Your task to perform on an android device: Go to internet settings Image 0: 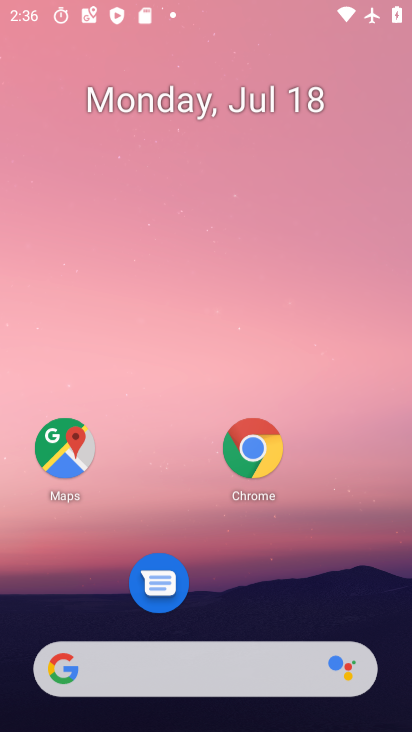
Step 0: press home button
Your task to perform on an android device: Go to internet settings Image 1: 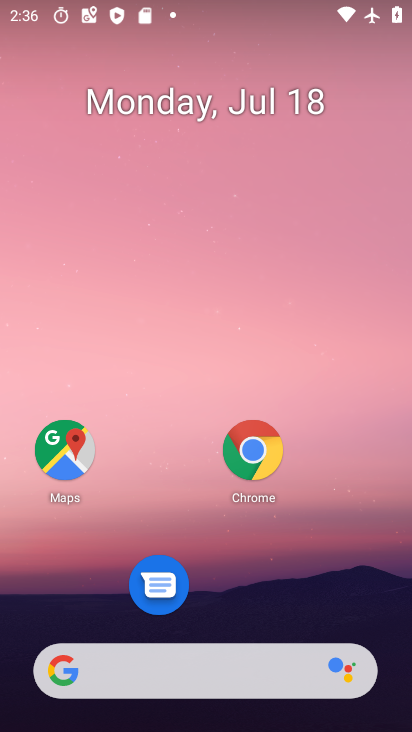
Step 1: drag from (203, 677) to (256, 195)
Your task to perform on an android device: Go to internet settings Image 2: 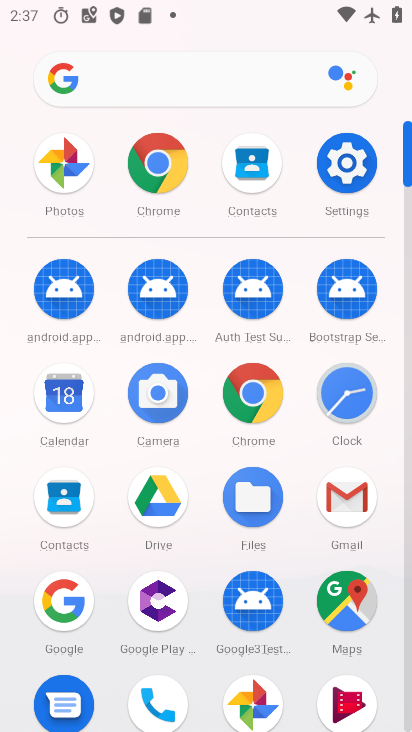
Step 2: click (343, 168)
Your task to perform on an android device: Go to internet settings Image 3: 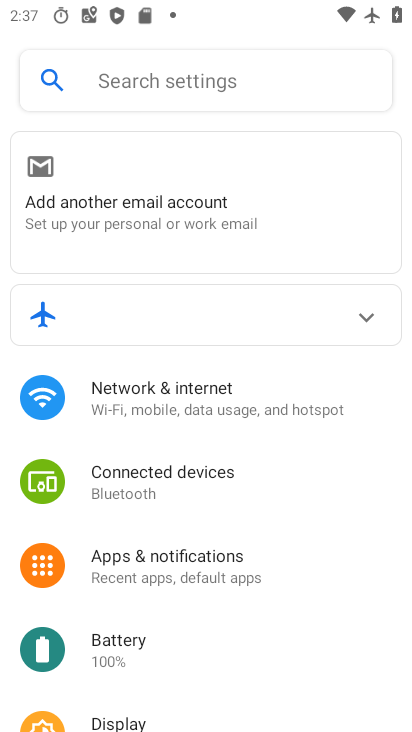
Step 3: click (193, 400)
Your task to perform on an android device: Go to internet settings Image 4: 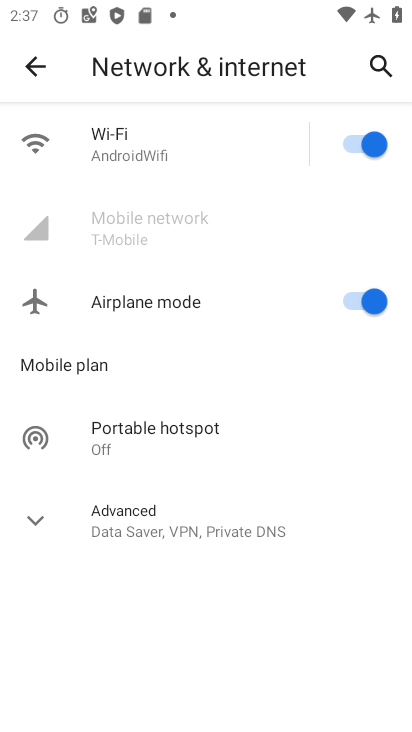
Step 4: task complete